Your task to perform on an android device: Clear all items from cart on target. Add macbook pro to the cart on target, then select checkout. Image 0: 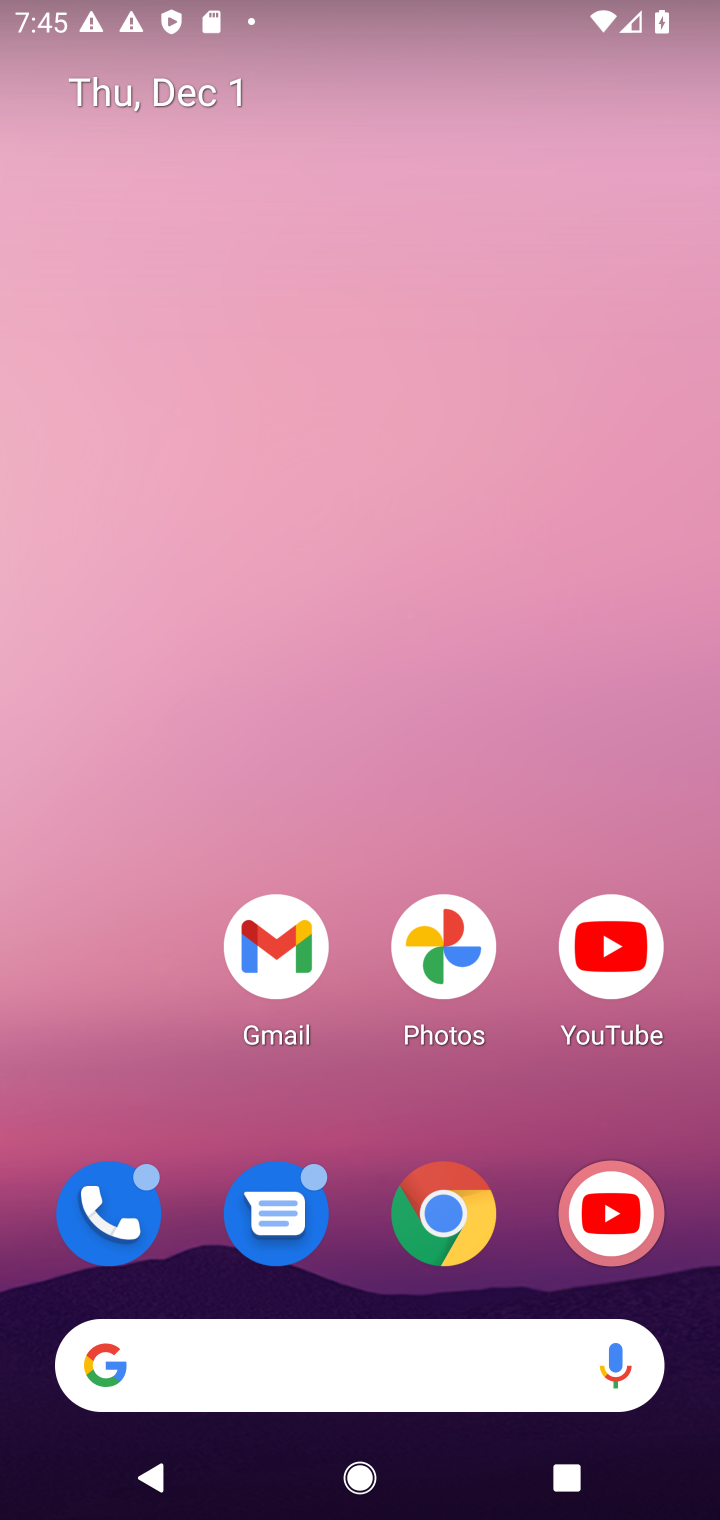
Step 0: drag from (308, 1250) to (354, 480)
Your task to perform on an android device: Clear all items from cart on target. Add macbook pro to the cart on target, then select checkout. Image 1: 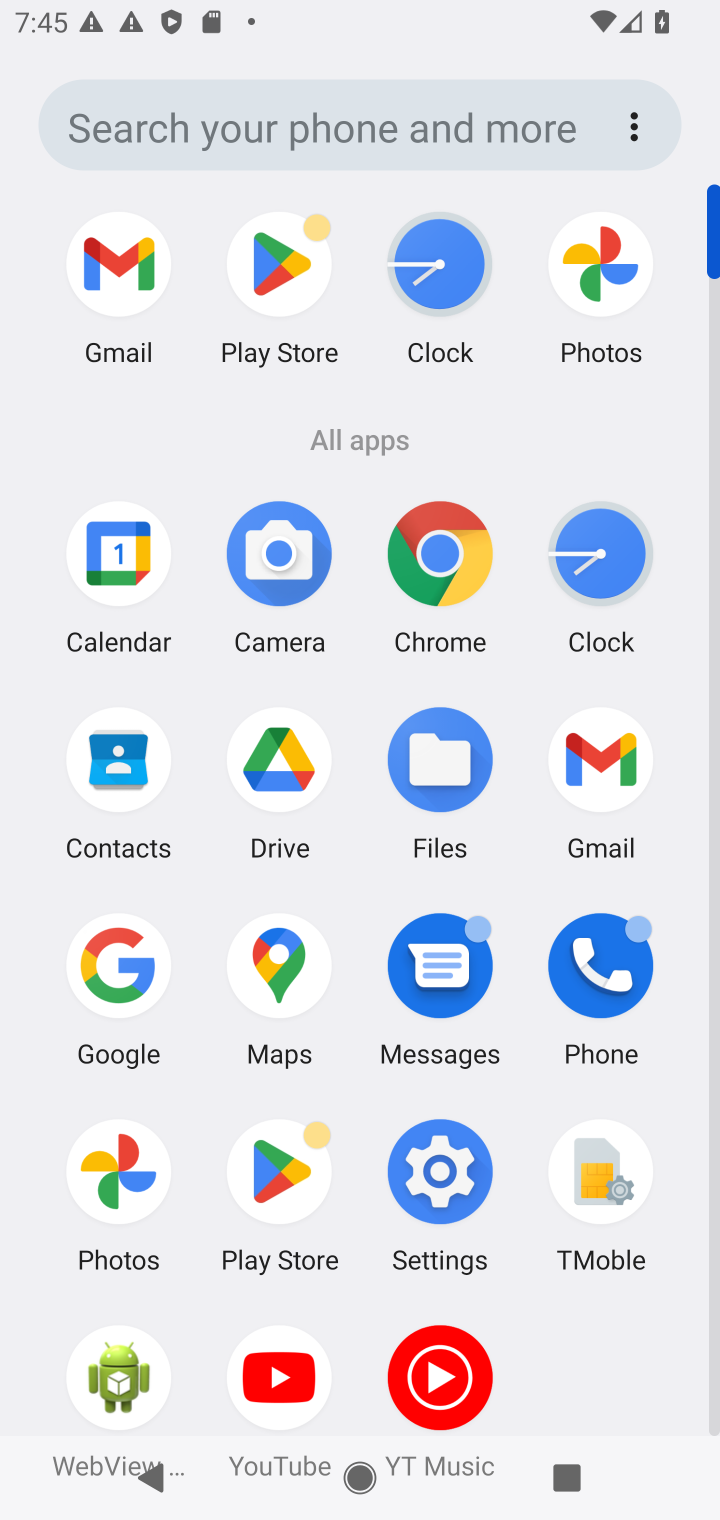
Step 1: click (92, 969)
Your task to perform on an android device: Clear all items from cart on target. Add macbook pro to the cart on target, then select checkout. Image 2: 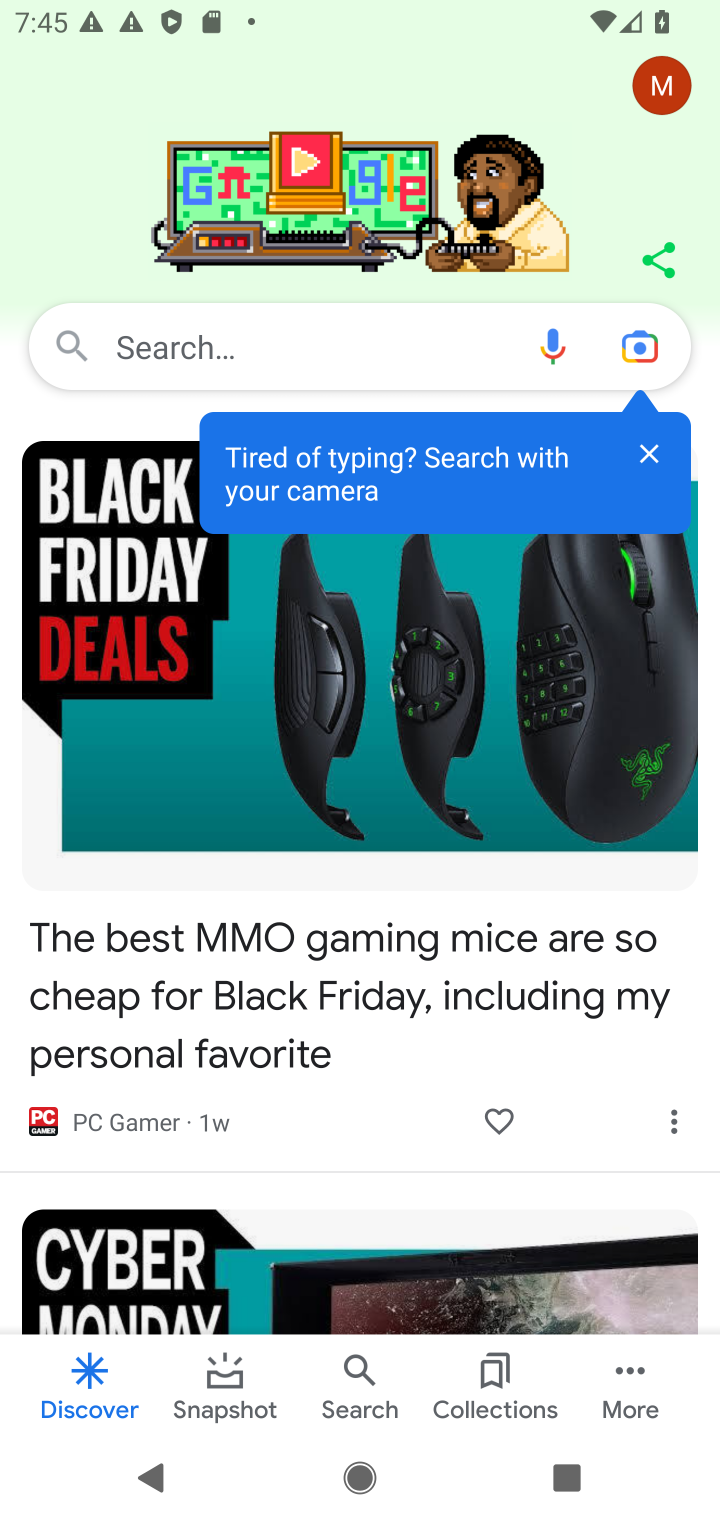
Step 2: click (309, 353)
Your task to perform on an android device: Clear all items from cart on target. Add macbook pro to the cart on target, then select checkout. Image 3: 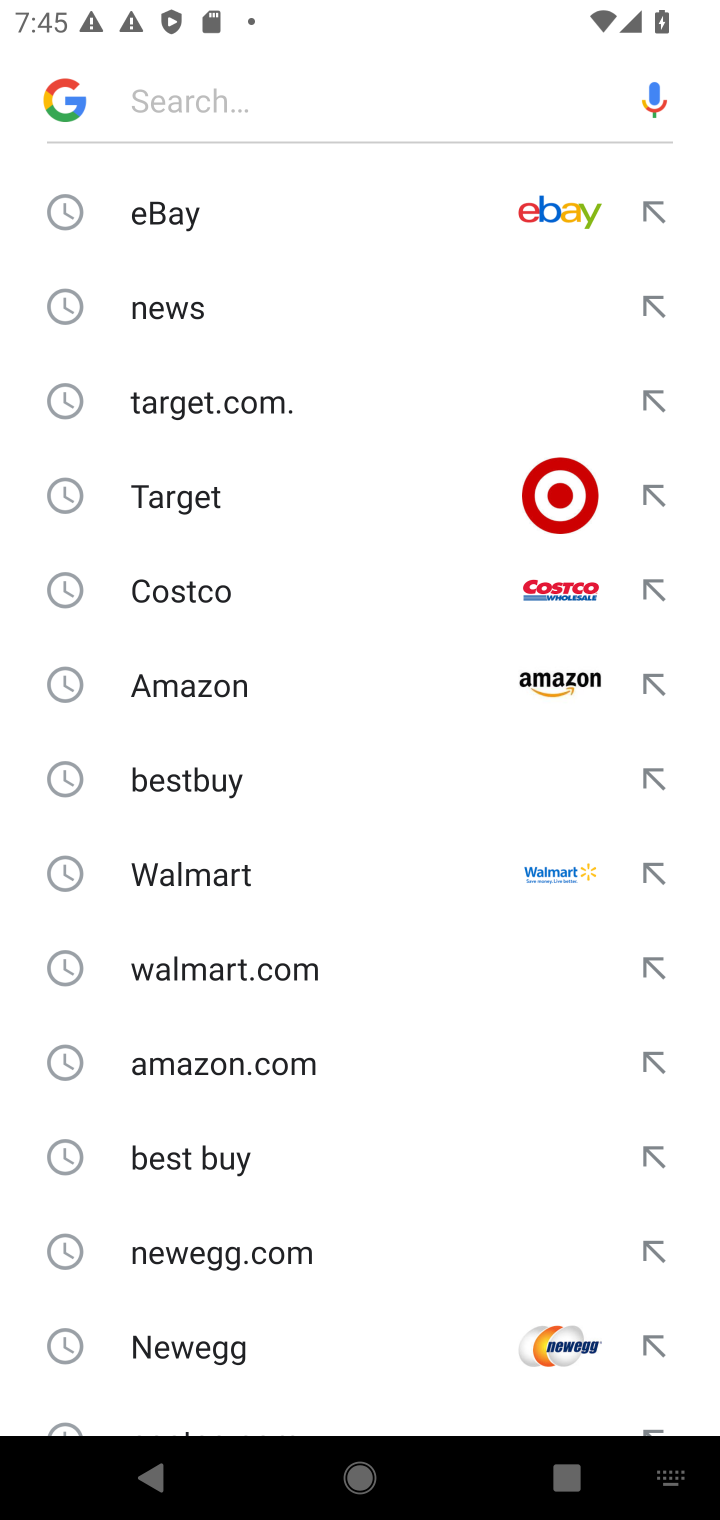
Step 3: click (178, 501)
Your task to perform on an android device: Clear all items from cart on target. Add macbook pro to the cart on target, then select checkout. Image 4: 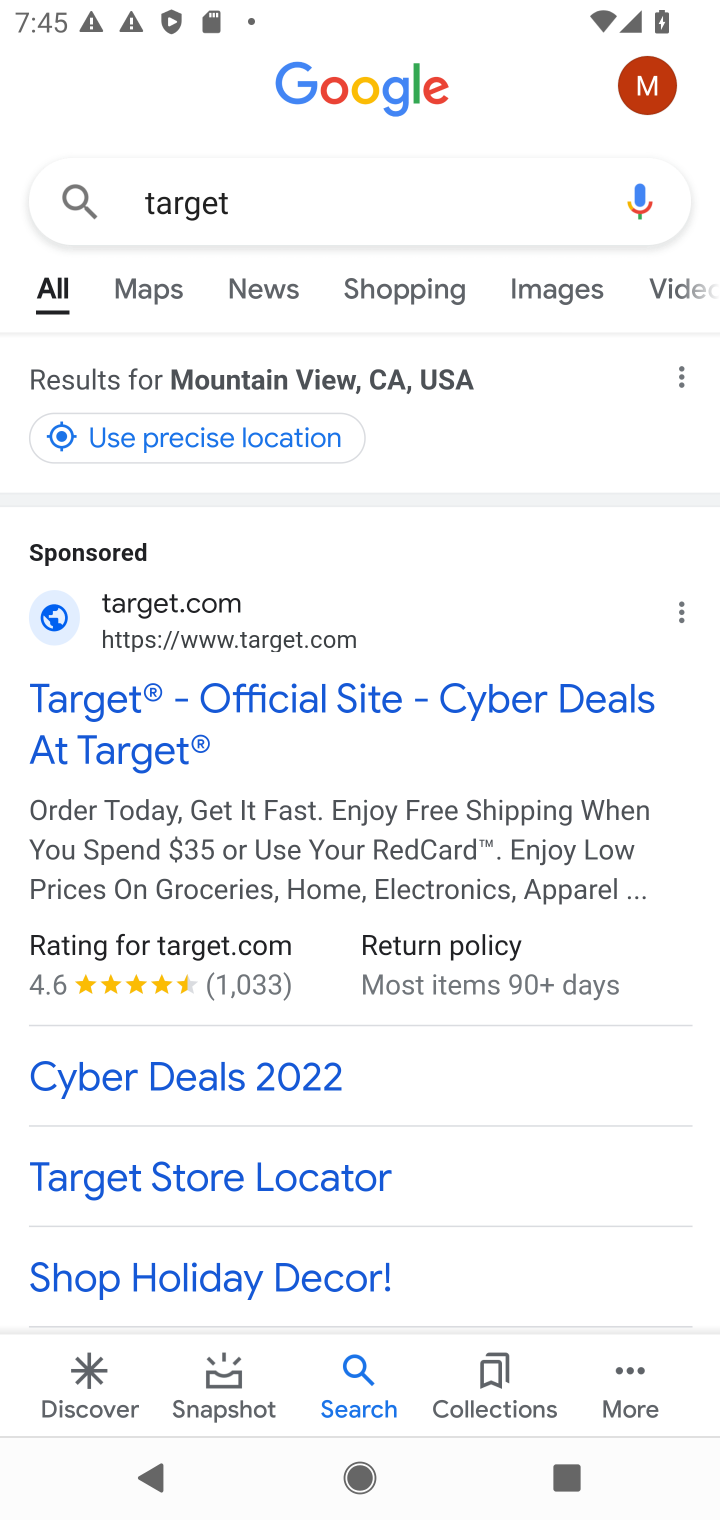
Step 4: click (193, 704)
Your task to perform on an android device: Clear all items from cart on target. Add macbook pro to the cart on target, then select checkout. Image 5: 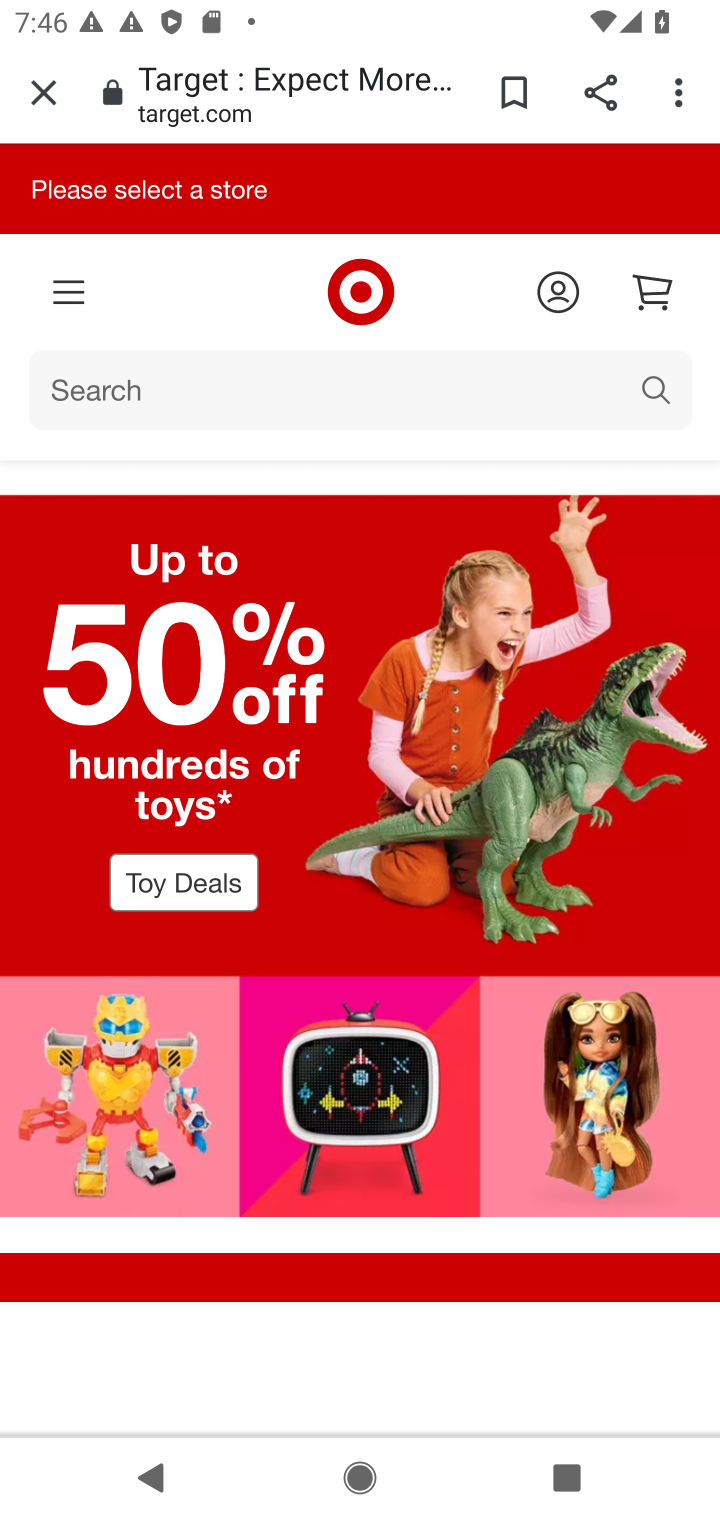
Step 5: click (322, 402)
Your task to perform on an android device: Clear all items from cart on target. Add macbook pro to the cart on target, then select checkout. Image 6: 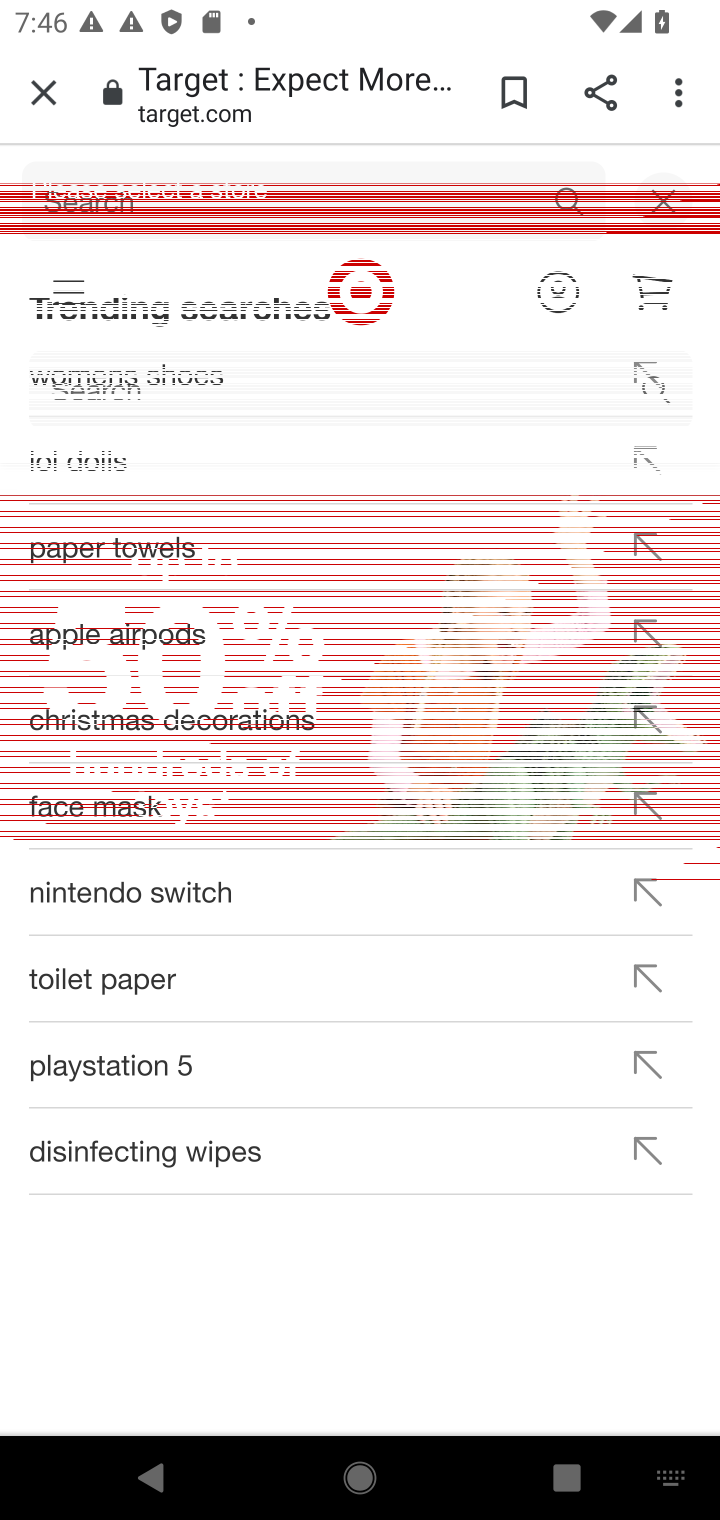
Step 6: type "macbook pro"
Your task to perform on an android device: Clear all items from cart on target. Add macbook pro to the cart on target, then select checkout. Image 7: 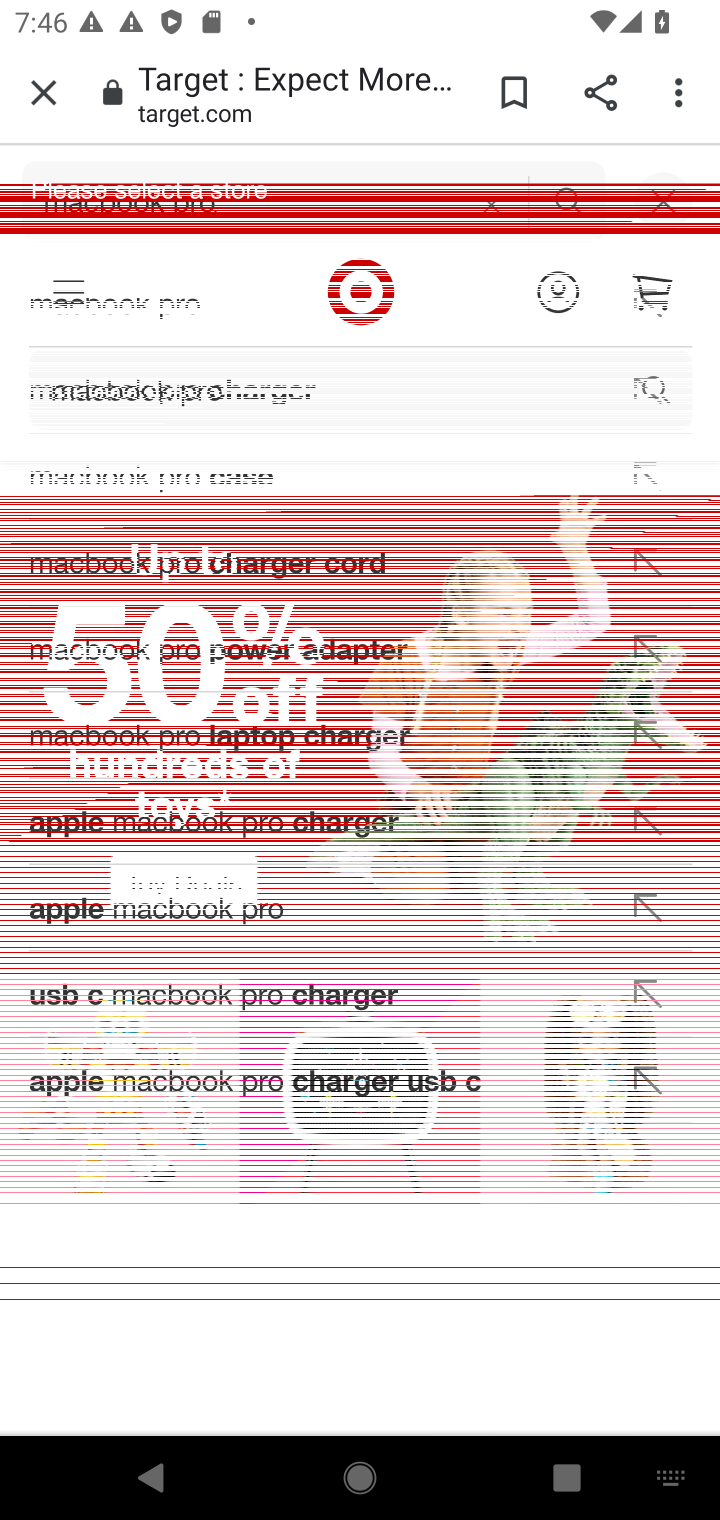
Step 7: click (115, 310)
Your task to perform on an android device: Clear all items from cart on target. Add macbook pro to the cart on target, then select checkout. Image 8: 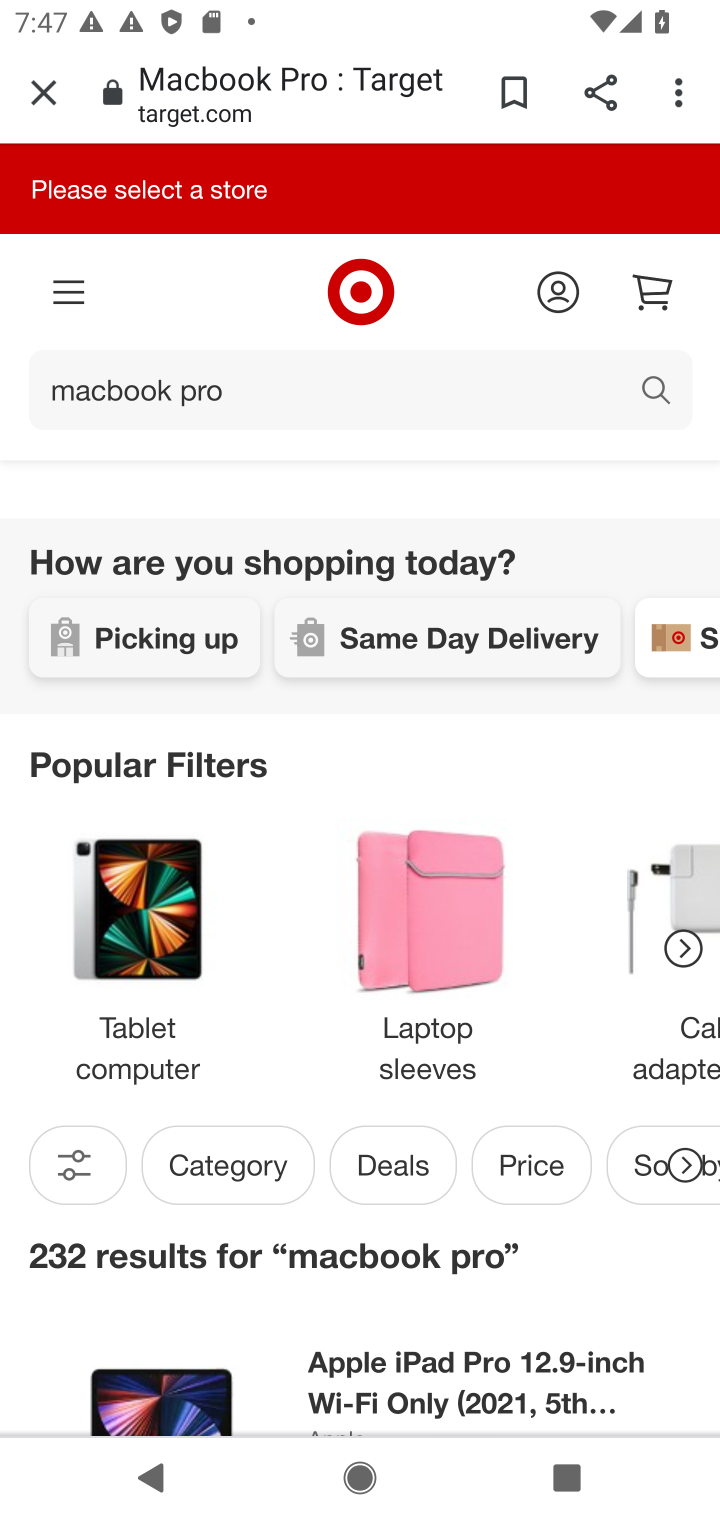
Step 8: click (484, 1383)
Your task to perform on an android device: Clear all items from cart on target. Add macbook pro to the cart on target, then select checkout. Image 9: 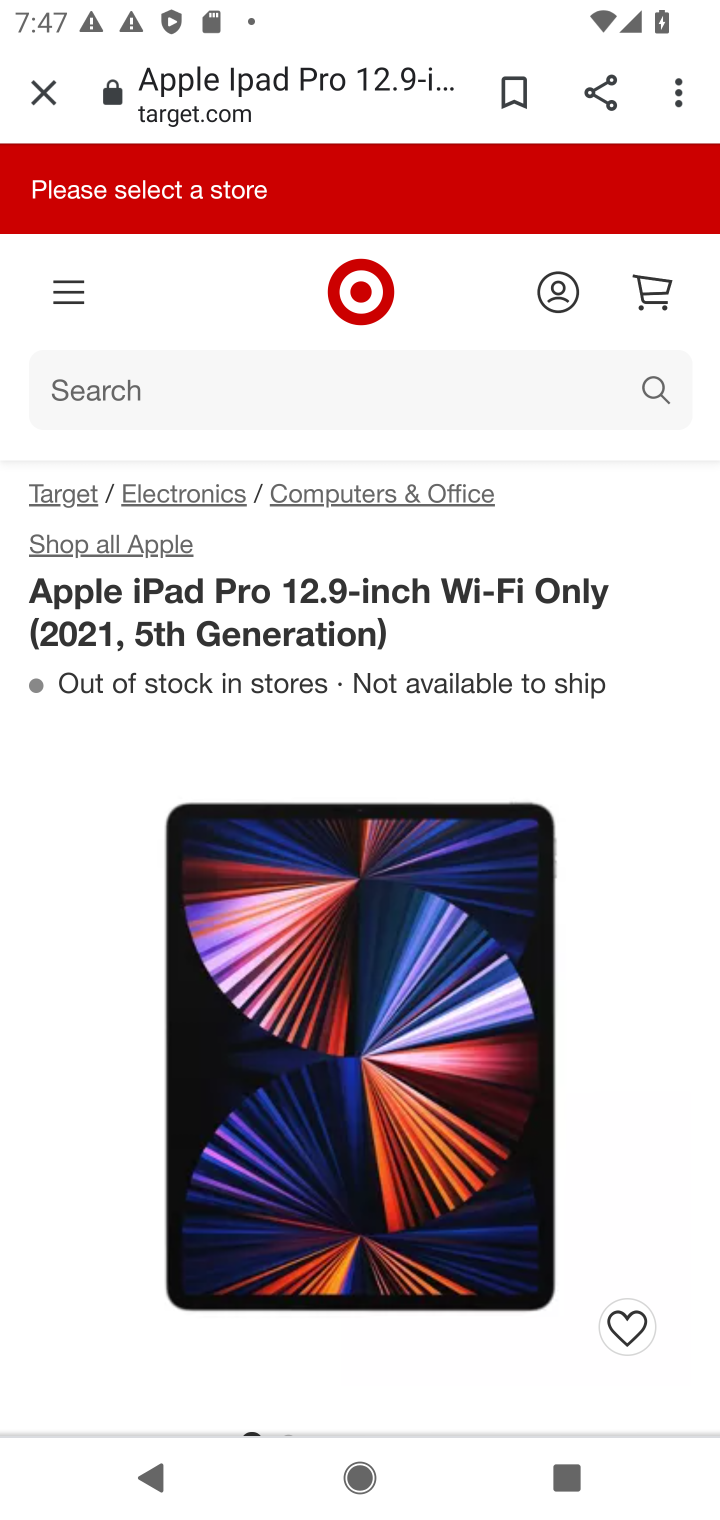
Step 9: drag from (315, 543) to (324, 233)
Your task to perform on an android device: Clear all items from cart on target. Add macbook pro to the cart on target, then select checkout. Image 10: 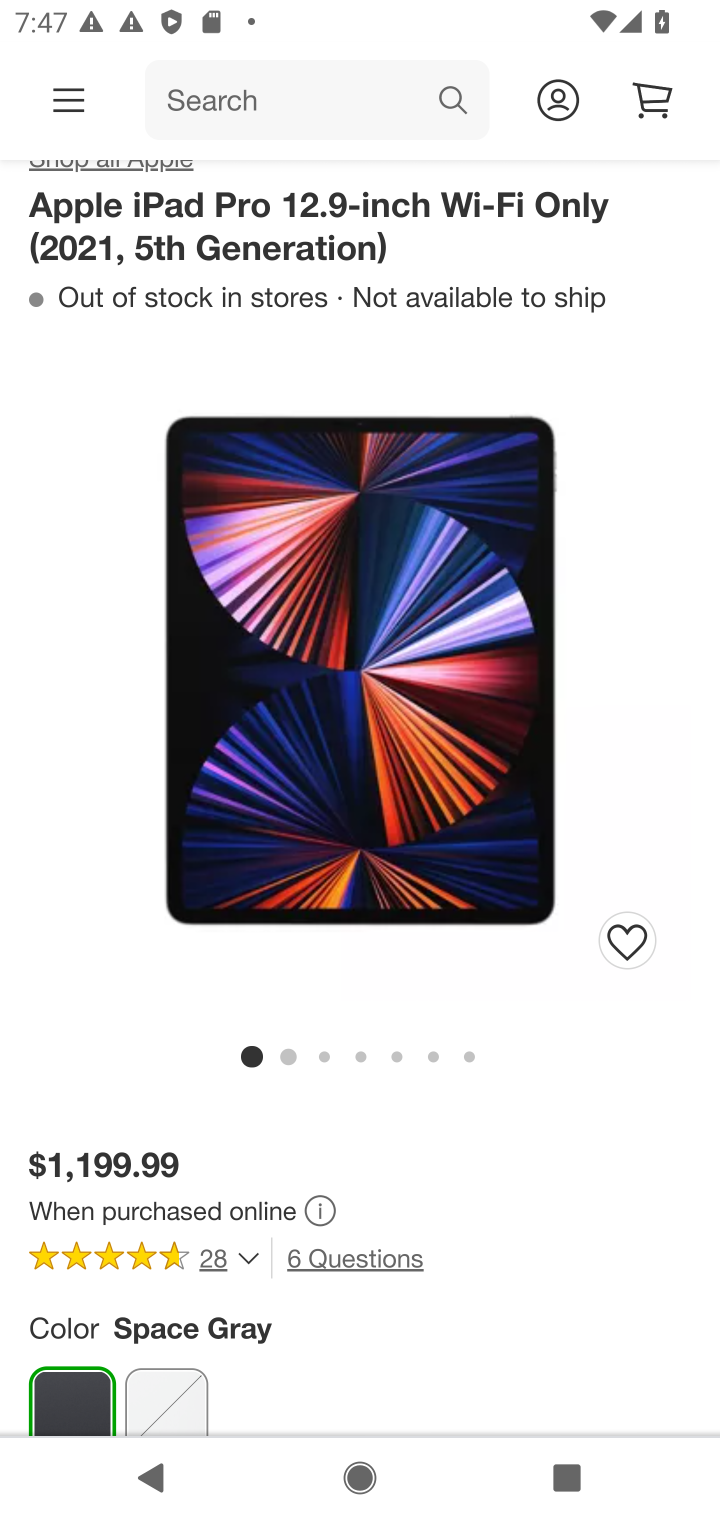
Step 10: drag from (345, 1227) to (343, 297)
Your task to perform on an android device: Clear all items from cart on target. Add macbook pro to the cart on target, then select checkout. Image 11: 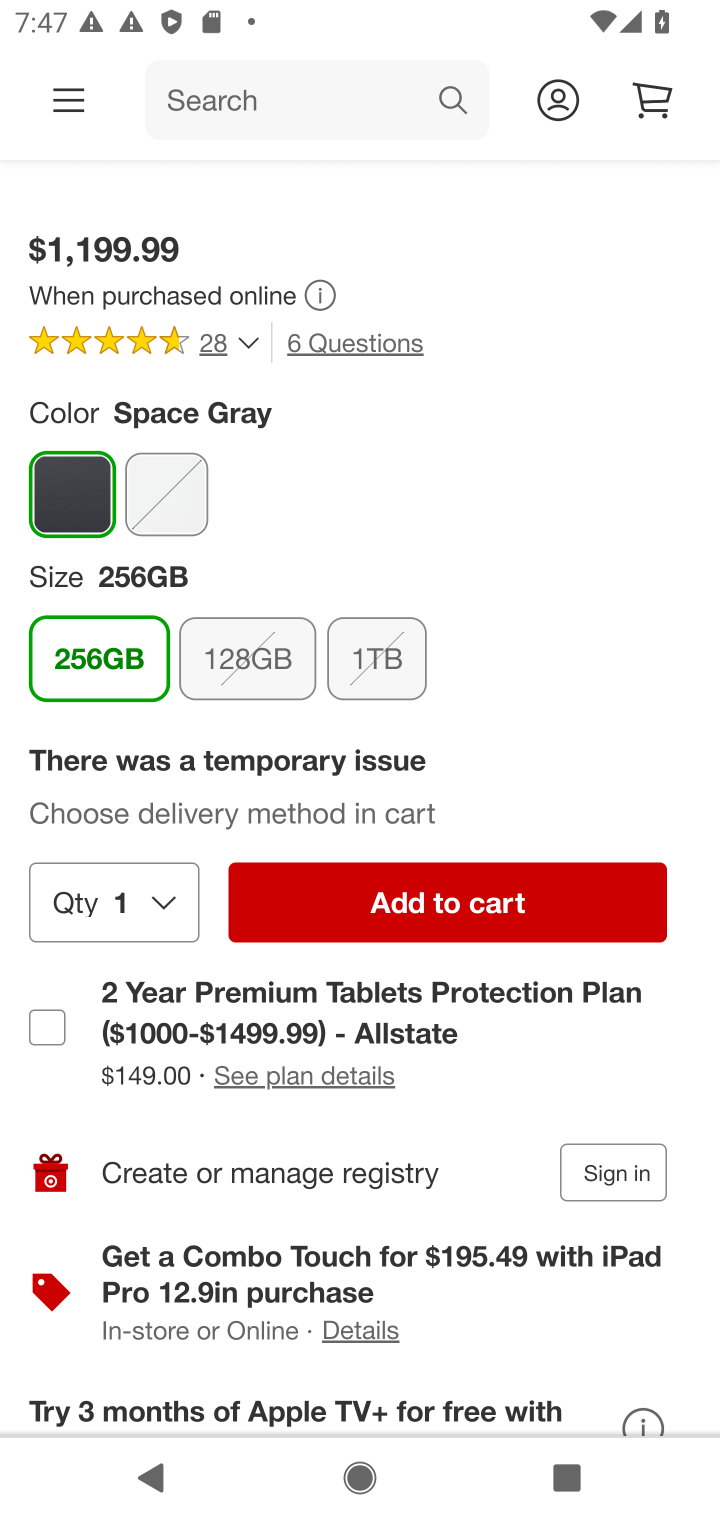
Step 11: click (410, 894)
Your task to perform on an android device: Clear all items from cart on target. Add macbook pro to the cart on target, then select checkout. Image 12: 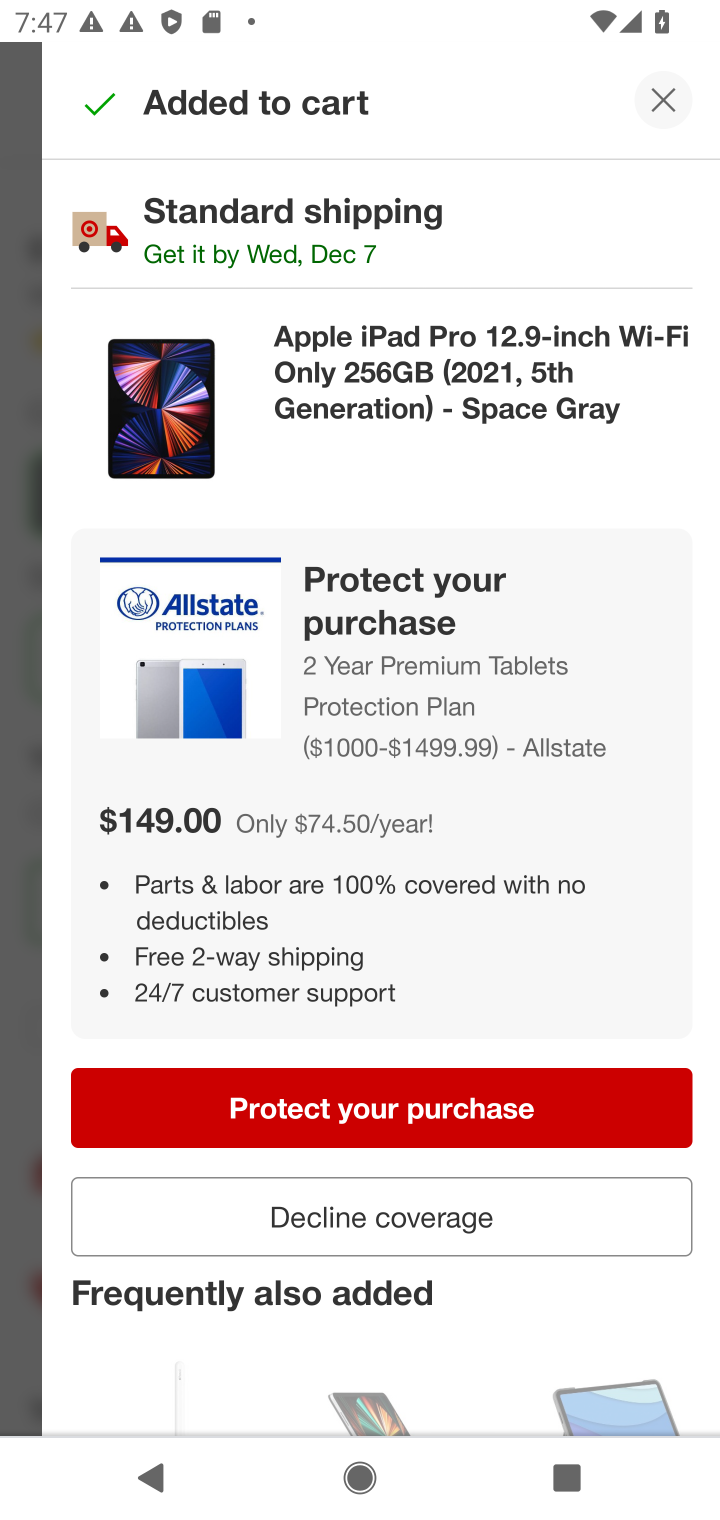
Step 12: click (668, 108)
Your task to perform on an android device: Clear all items from cart on target. Add macbook pro to the cart on target, then select checkout. Image 13: 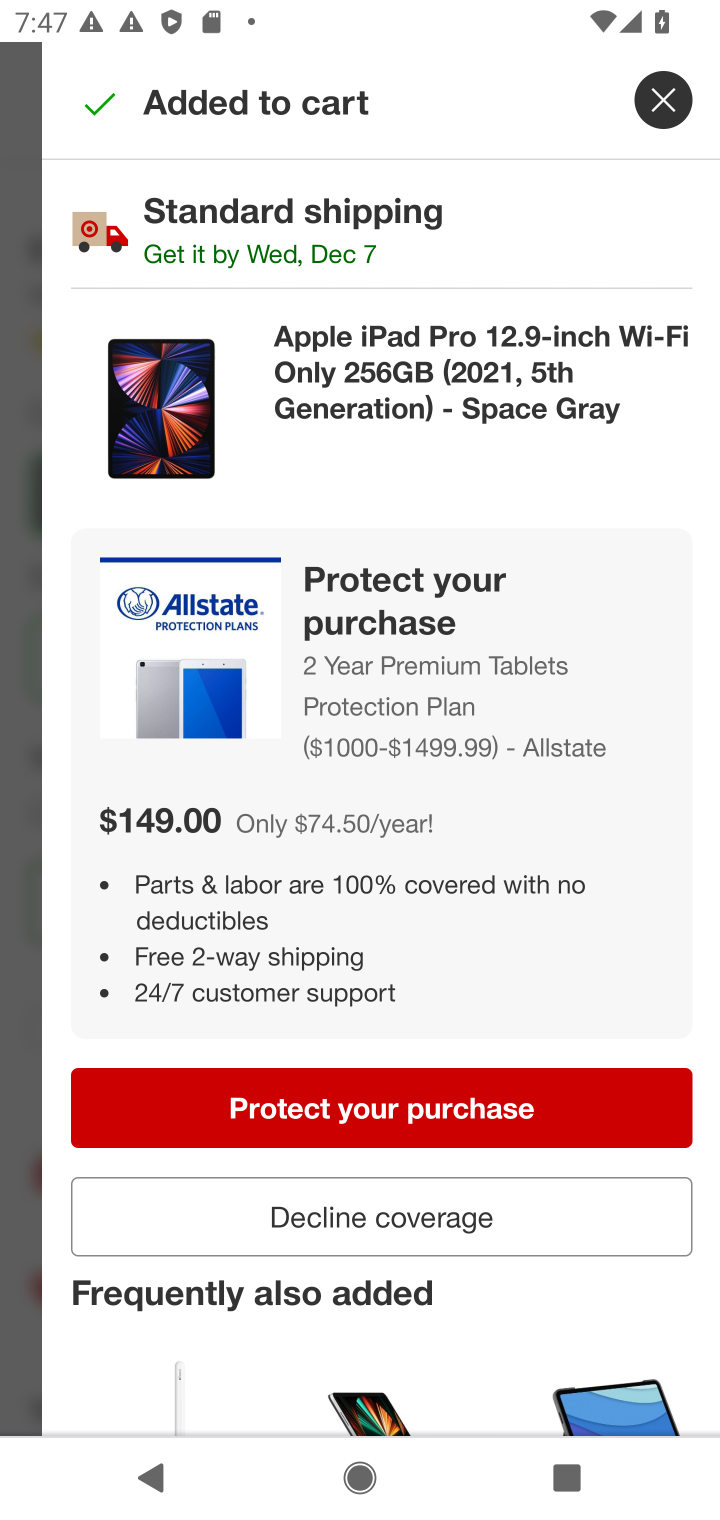
Step 13: click (675, 95)
Your task to perform on an android device: Clear all items from cart on target. Add macbook pro to the cart on target, then select checkout. Image 14: 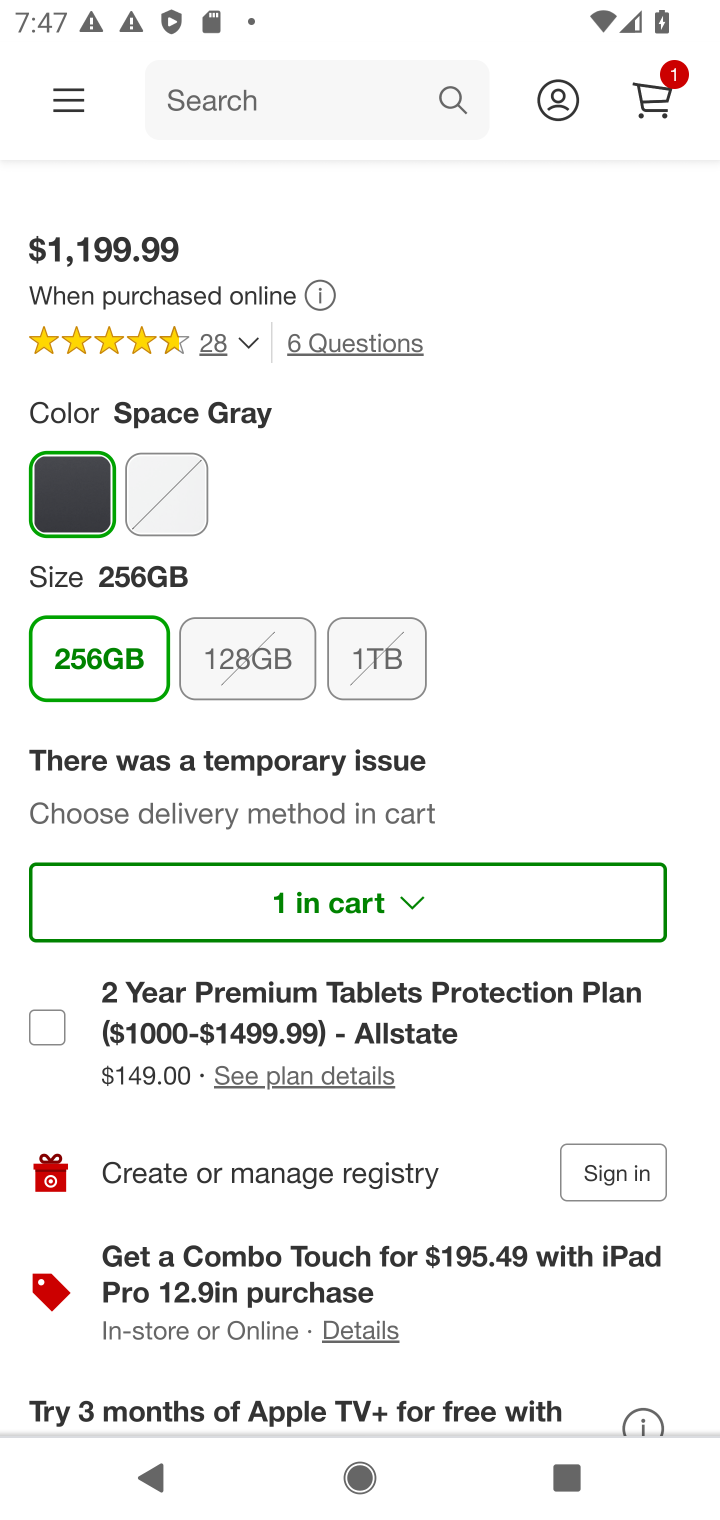
Step 14: click (665, 97)
Your task to perform on an android device: Clear all items from cart on target. Add macbook pro to the cart on target, then select checkout. Image 15: 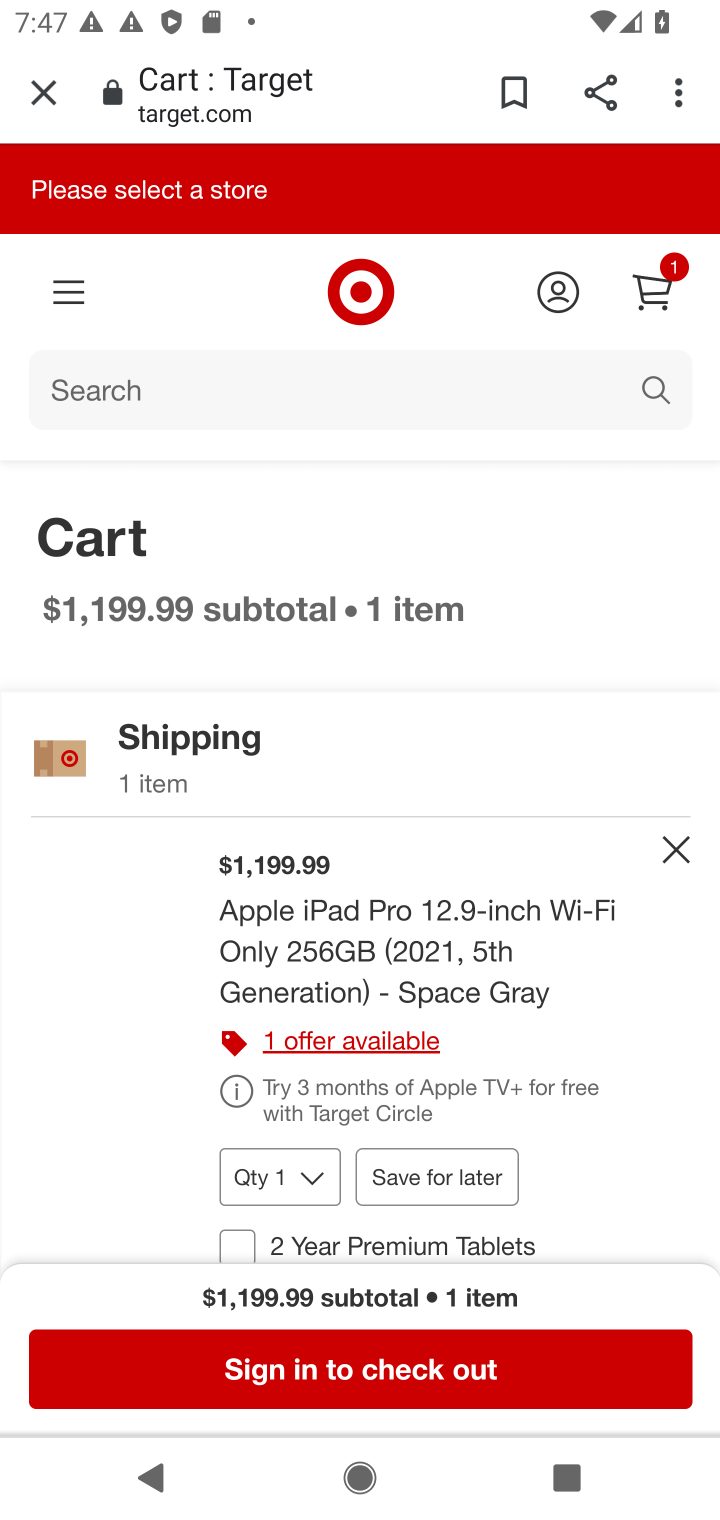
Step 15: click (684, 846)
Your task to perform on an android device: Clear all items from cart on target. Add macbook pro to the cart on target, then select checkout. Image 16: 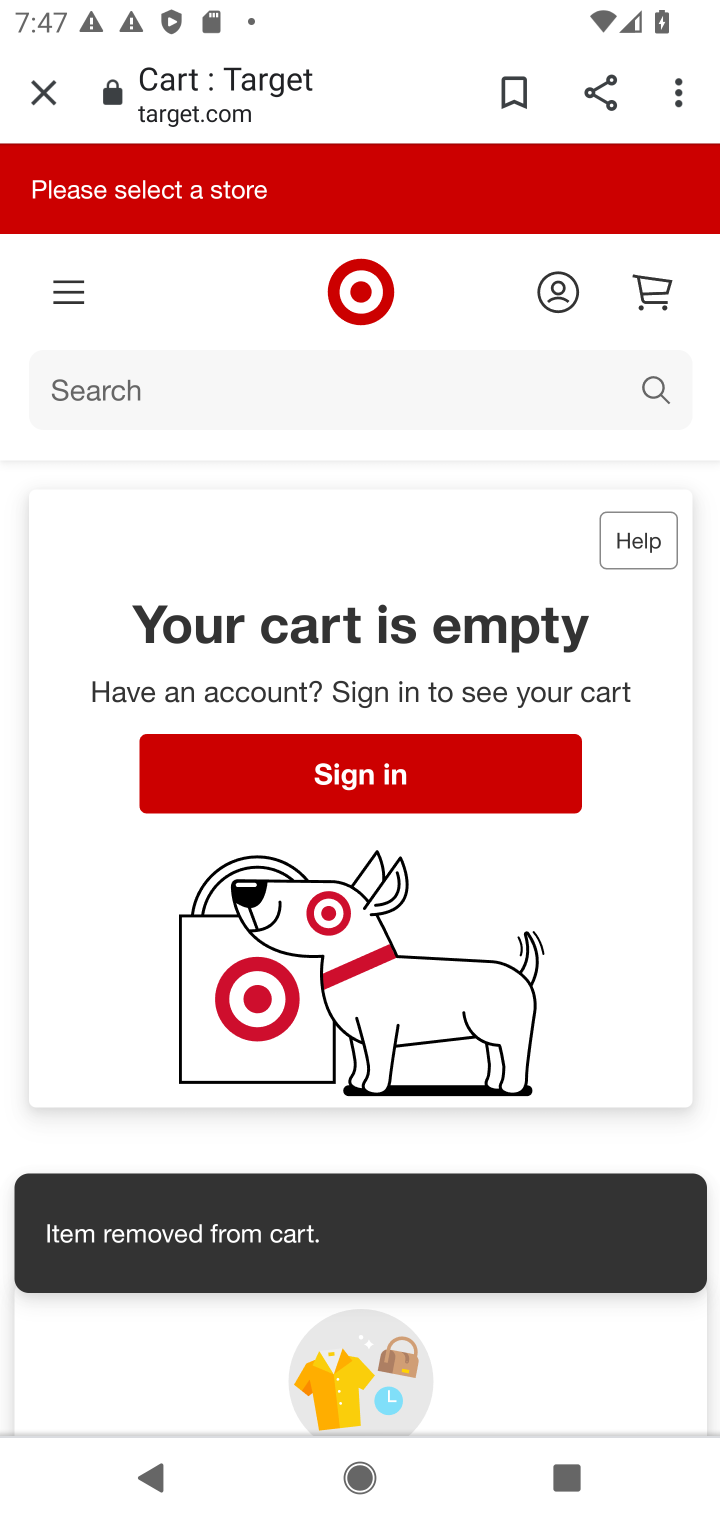
Step 16: task complete